Your task to perform on an android device: open device folders in google photos Image 0: 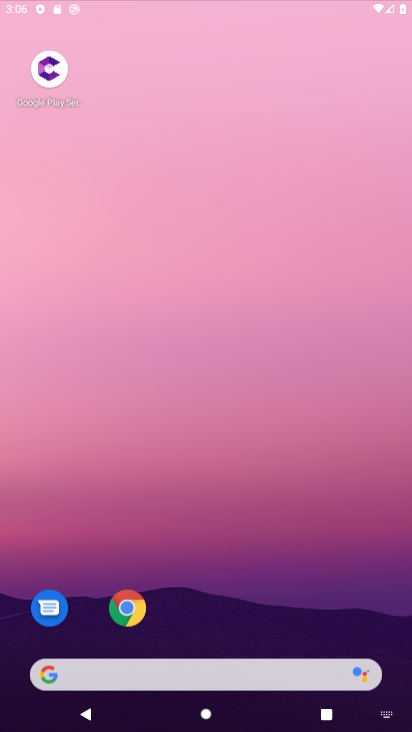
Step 0: click (117, 597)
Your task to perform on an android device: open device folders in google photos Image 1: 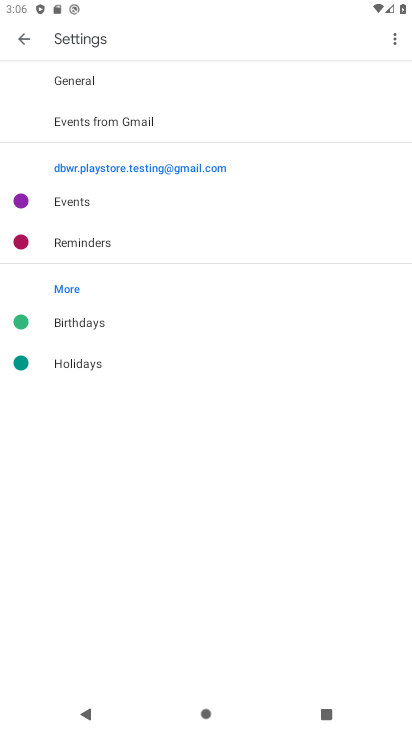
Step 1: click (408, 46)
Your task to perform on an android device: open device folders in google photos Image 2: 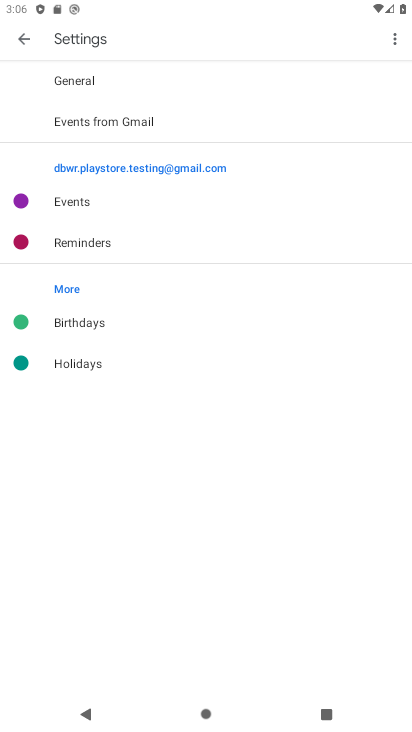
Step 2: press home button
Your task to perform on an android device: open device folders in google photos Image 3: 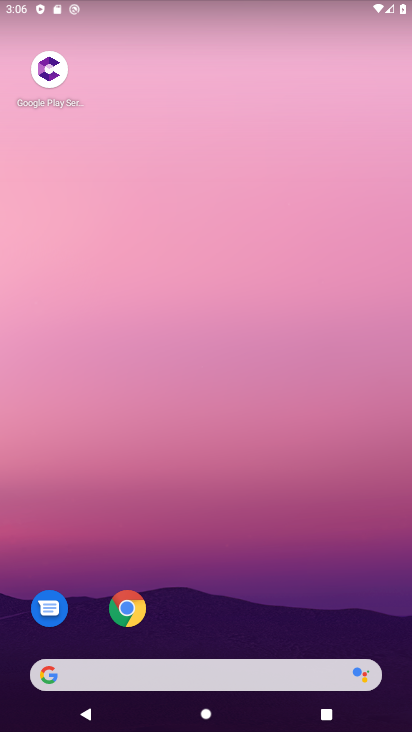
Step 3: click (120, 615)
Your task to perform on an android device: open device folders in google photos Image 4: 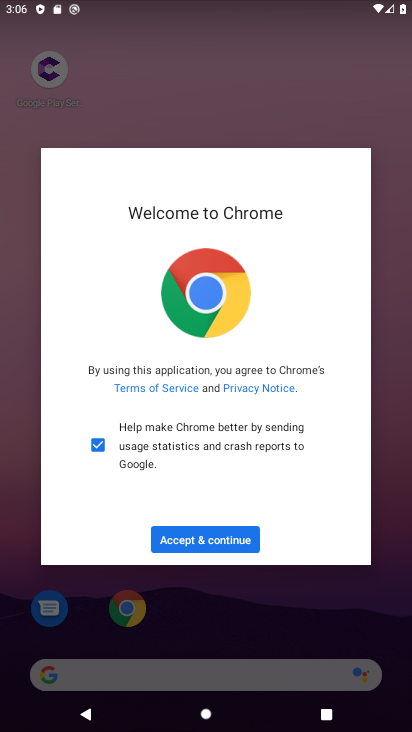
Step 4: click (196, 545)
Your task to perform on an android device: open device folders in google photos Image 5: 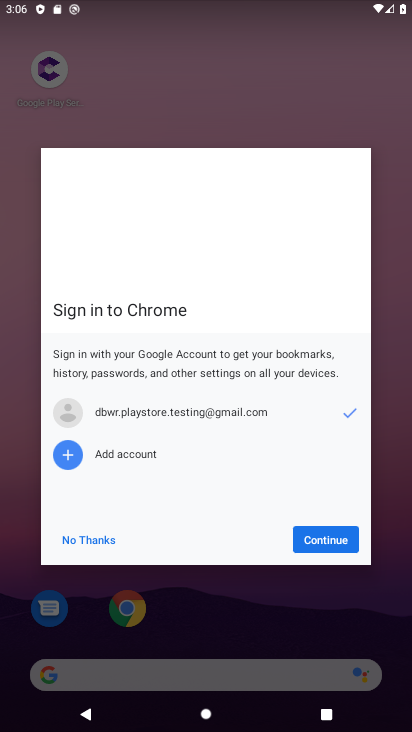
Step 5: click (323, 535)
Your task to perform on an android device: open device folders in google photos Image 6: 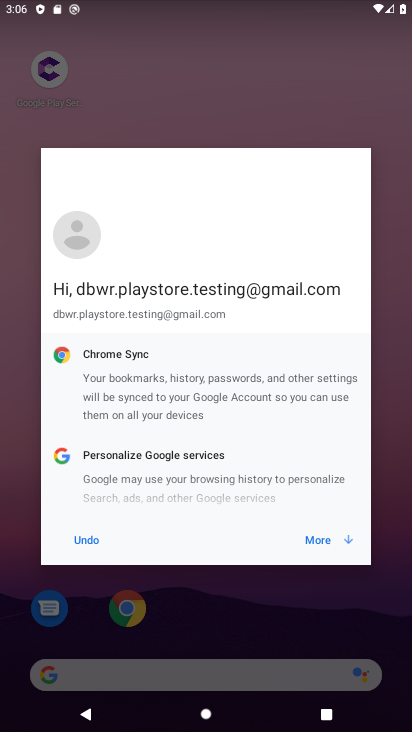
Step 6: click (305, 538)
Your task to perform on an android device: open device folders in google photos Image 7: 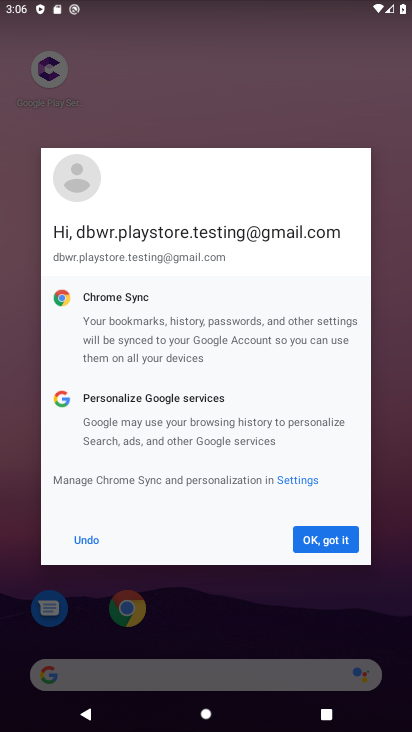
Step 7: click (305, 538)
Your task to perform on an android device: open device folders in google photos Image 8: 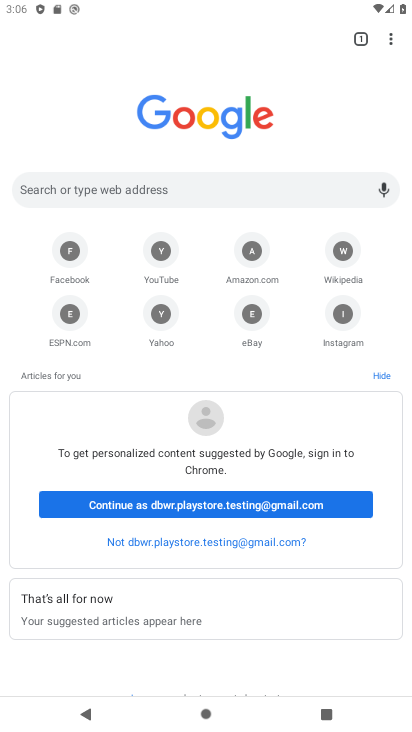
Step 8: click (387, 38)
Your task to perform on an android device: open device folders in google photos Image 9: 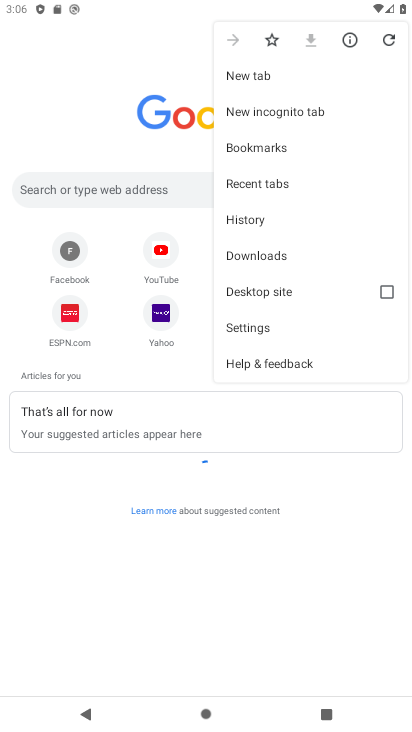
Step 9: press home button
Your task to perform on an android device: open device folders in google photos Image 10: 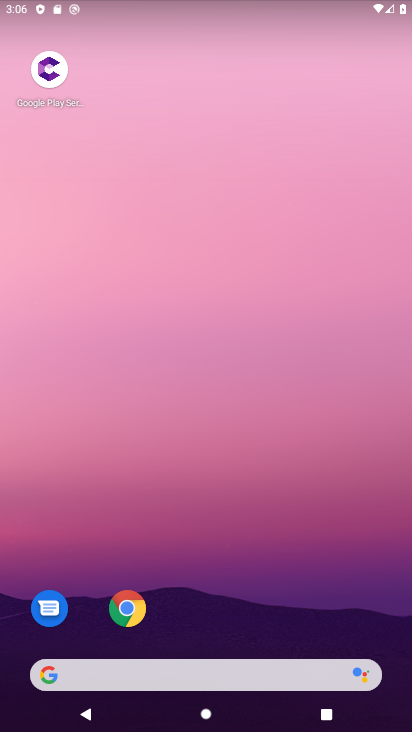
Step 10: drag from (187, 618) to (244, 304)
Your task to perform on an android device: open device folders in google photos Image 11: 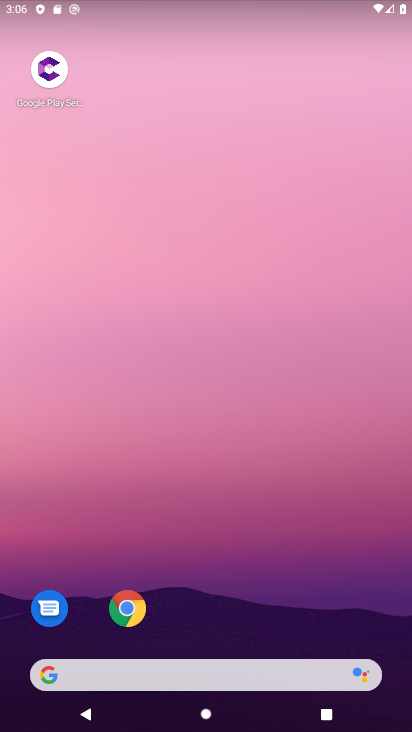
Step 11: drag from (190, 636) to (201, 230)
Your task to perform on an android device: open device folders in google photos Image 12: 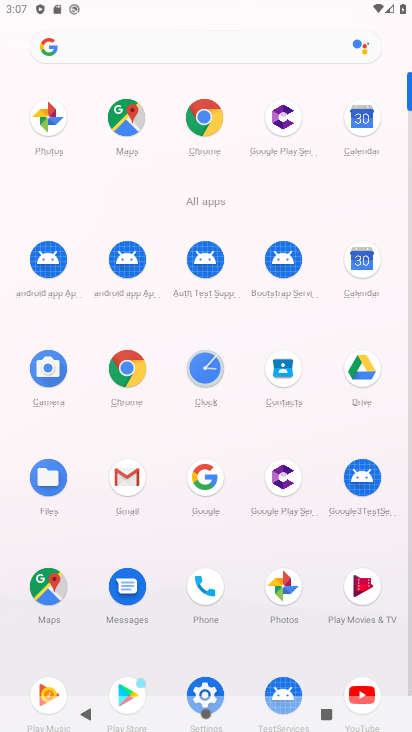
Step 12: click (284, 578)
Your task to perform on an android device: open device folders in google photos Image 13: 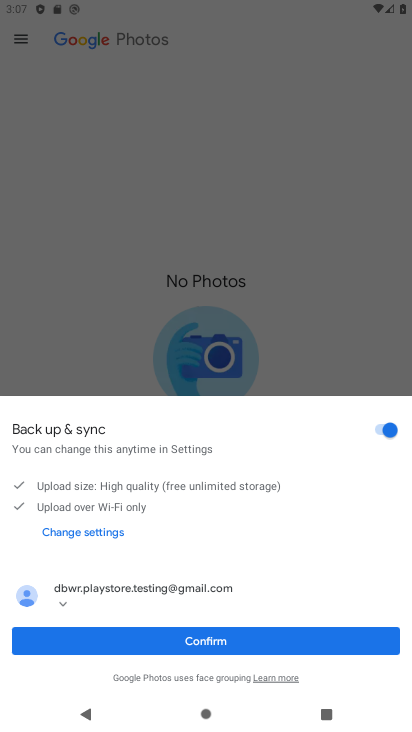
Step 13: click (192, 634)
Your task to perform on an android device: open device folders in google photos Image 14: 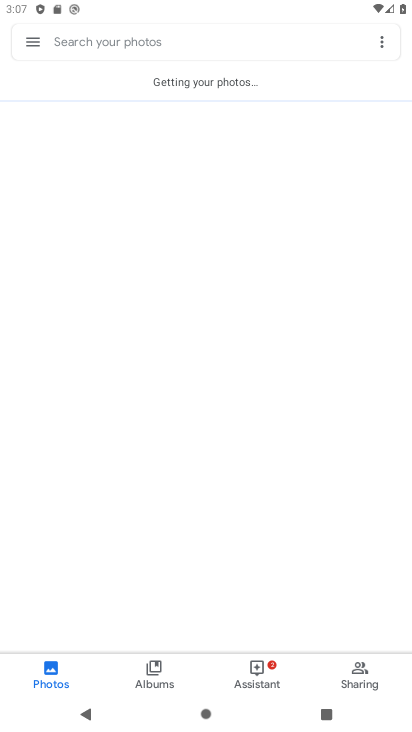
Step 14: click (147, 664)
Your task to perform on an android device: open device folders in google photos Image 15: 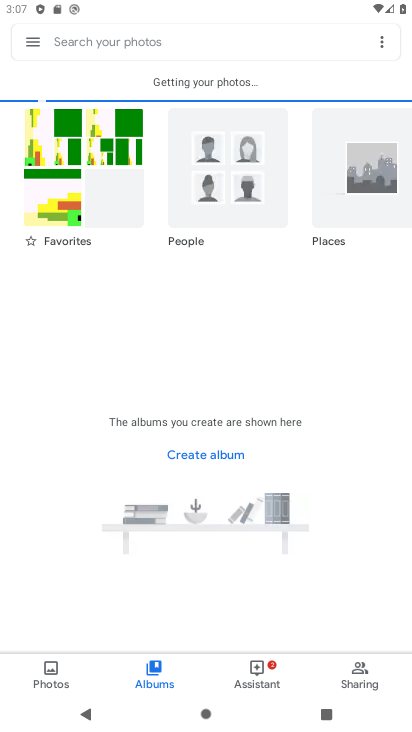
Step 15: click (52, 660)
Your task to perform on an android device: open device folders in google photos Image 16: 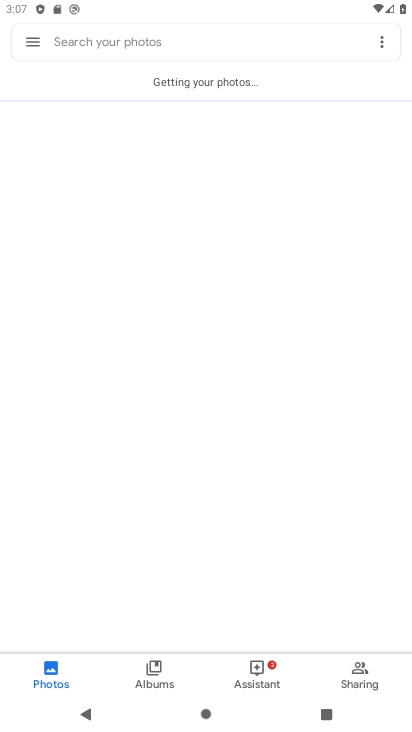
Step 16: task complete